Your task to perform on an android device: Open the calendar app, open the side menu, and click the "Day" option Image 0: 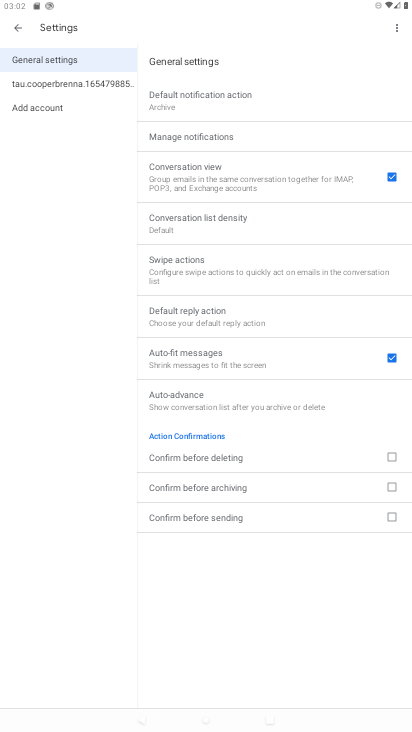
Step 0: press home button
Your task to perform on an android device: Open the calendar app, open the side menu, and click the "Day" option Image 1: 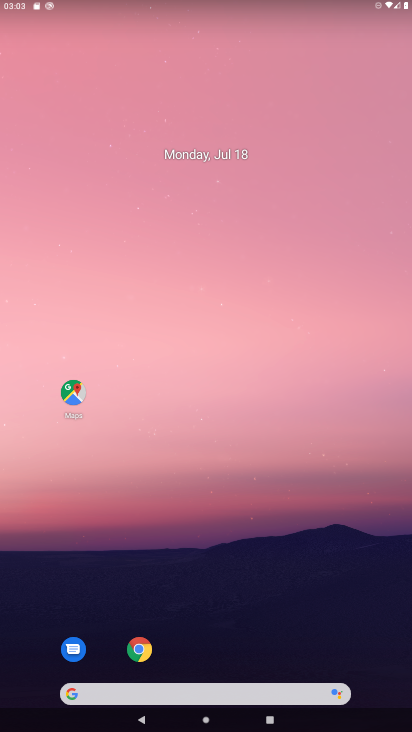
Step 1: drag from (114, 664) to (200, 153)
Your task to perform on an android device: Open the calendar app, open the side menu, and click the "Day" option Image 2: 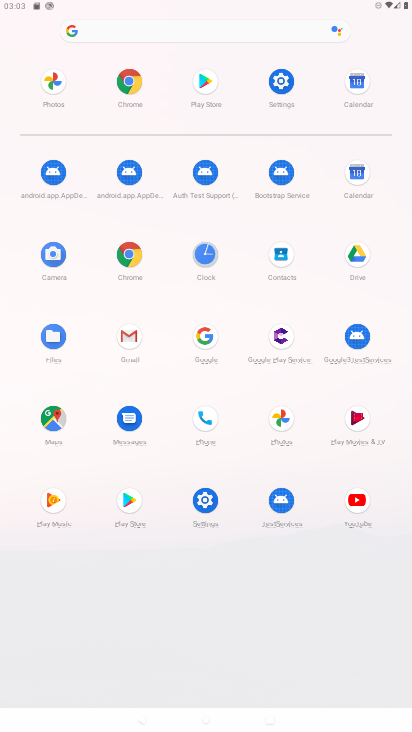
Step 2: click (360, 172)
Your task to perform on an android device: Open the calendar app, open the side menu, and click the "Day" option Image 3: 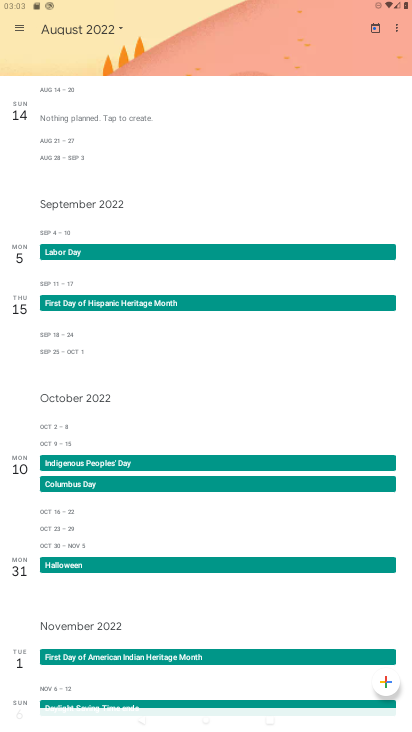
Step 3: click (13, 23)
Your task to perform on an android device: Open the calendar app, open the side menu, and click the "Day" option Image 4: 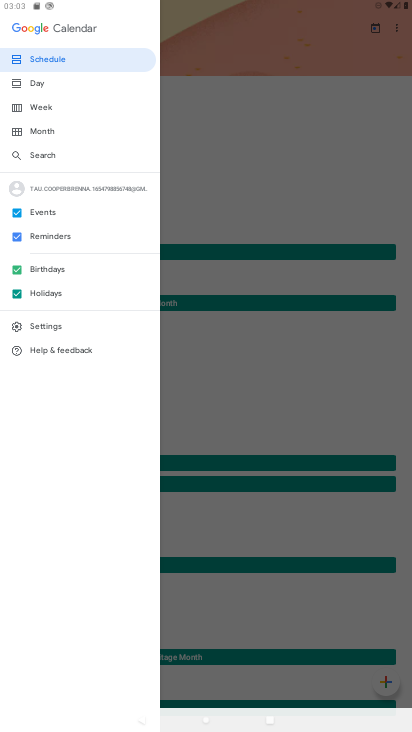
Step 4: click (58, 90)
Your task to perform on an android device: Open the calendar app, open the side menu, and click the "Day" option Image 5: 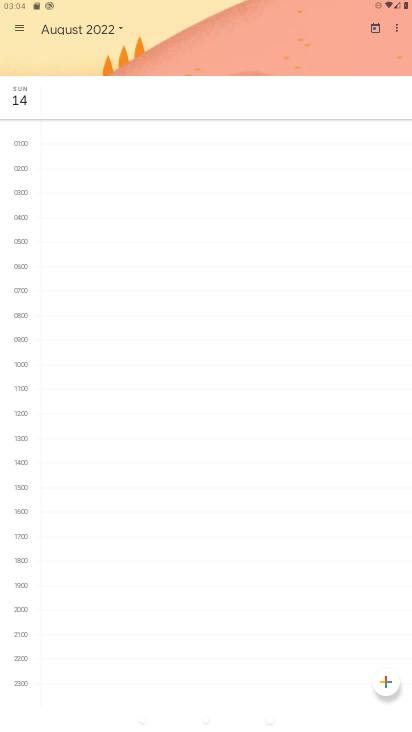
Step 5: task complete